Your task to perform on an android device: visit the assistant section in the google photos Image 0: 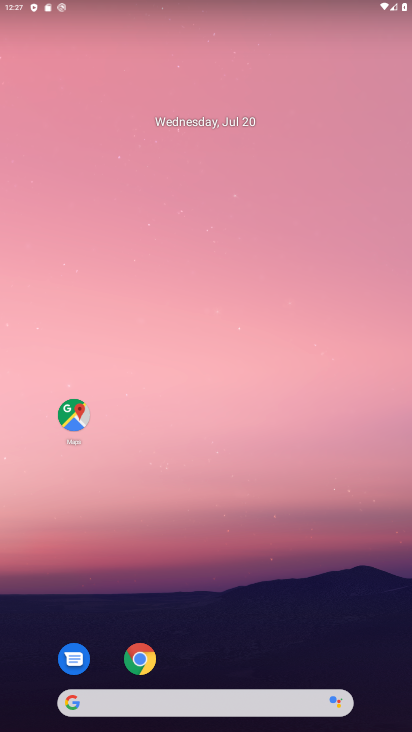
Step 0: drag from (368, 645) to (183, 5)
Your task to perform on an android device: visit the assistant section in the google photos Image 1: 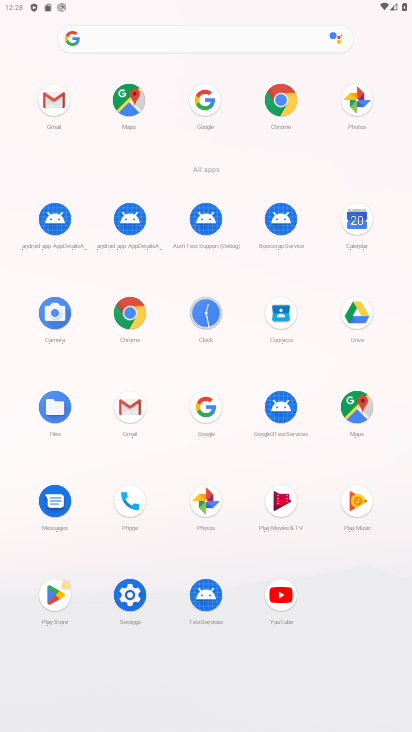
Step 1: click (215, 502)
Your task to perform on an android device: visit the assistant section in the google photos Image 2: 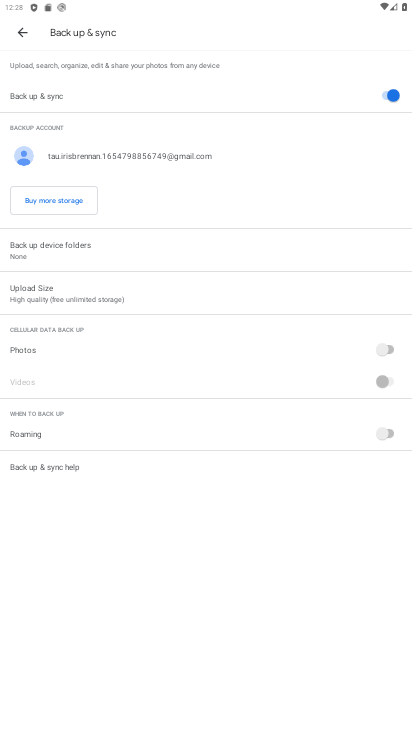
Step 2: task complete